Your task to perform on an android device: Go to calendar. Show me events next week Image 0: 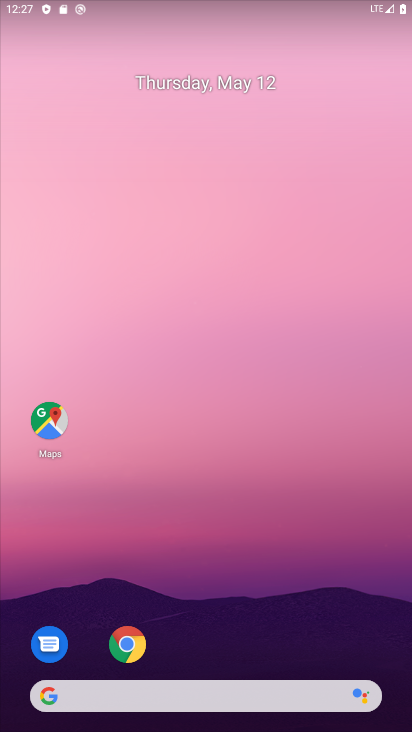
Step 0: click (216, 88)
Your task to perform on an android device: Go to calendar. Show me events next week Image 1: 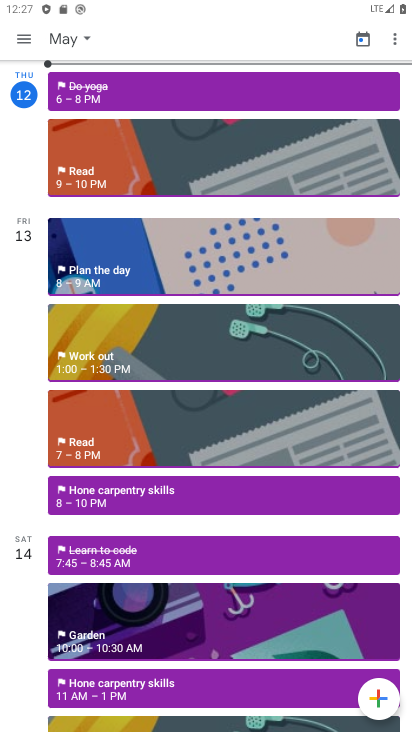
Step 1: click (75, 38)
Your task to perform on an android device: Go to calendar. Show me events next week Image 2: 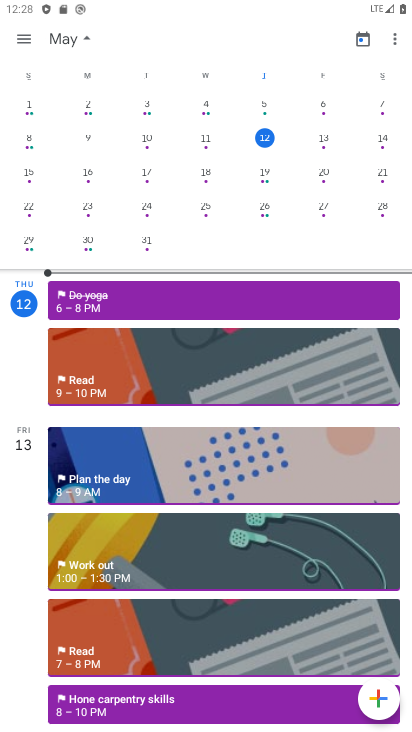
Step 2: click (33, 177)
Your task to perform on an android device: Go to calendar. Show me events next week Image 3: 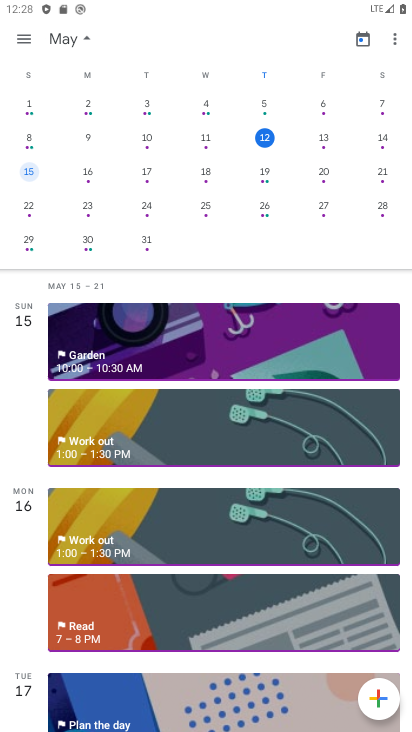
Step 3: click (24, 40)
Your task to perform on an android device: Go to calendar. Show me events next week Image 4: 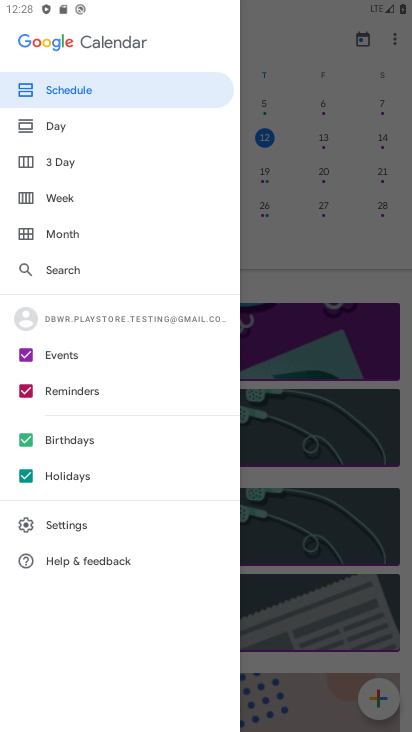
Step 4: click (70, 197)
Your task to perform on an android device: Go to calendar. Show me events next week Image 5: 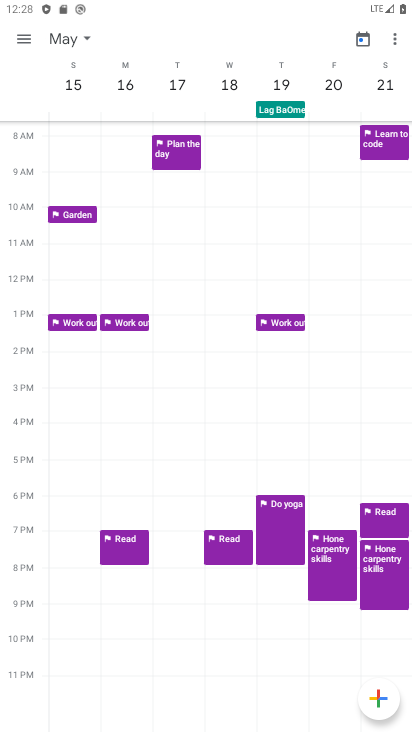
Step 5: task complete